Your task to perform on an android device: What's the weather today? Image 0: 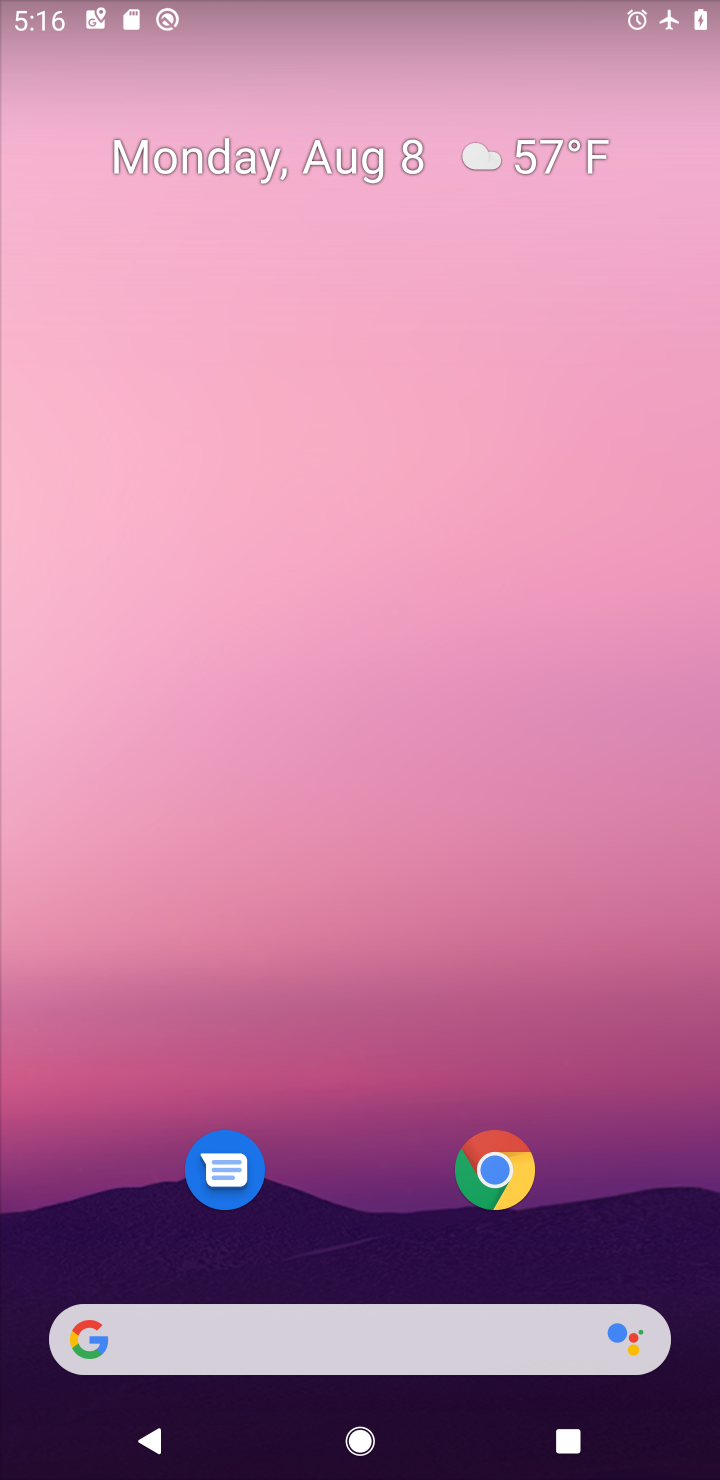
Step 0: drag from (361, 1193) to (324, 381)
Your task to perform on an android device: What's the weather today? Image 1: 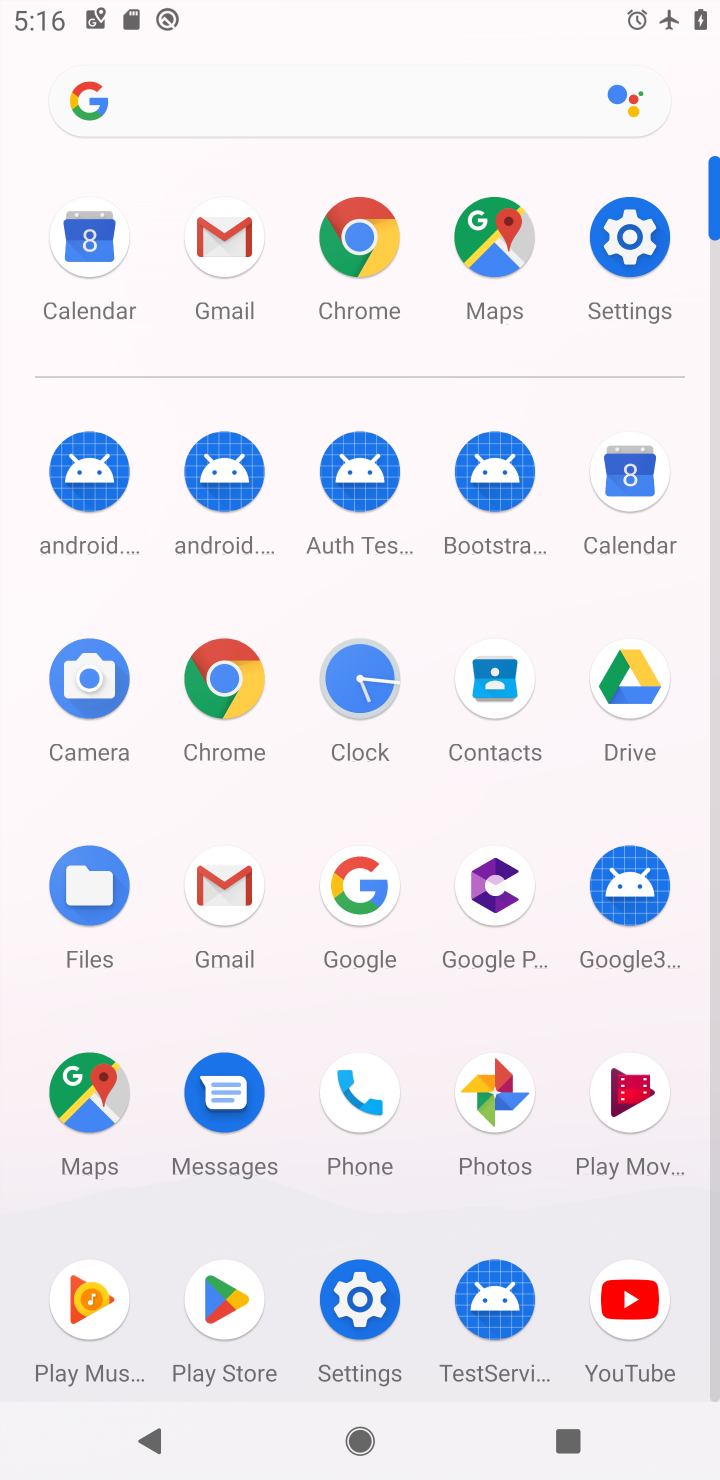
Step 1: click (408, 891)
Your task to perform on an android device: What's the weather today? Image 2: 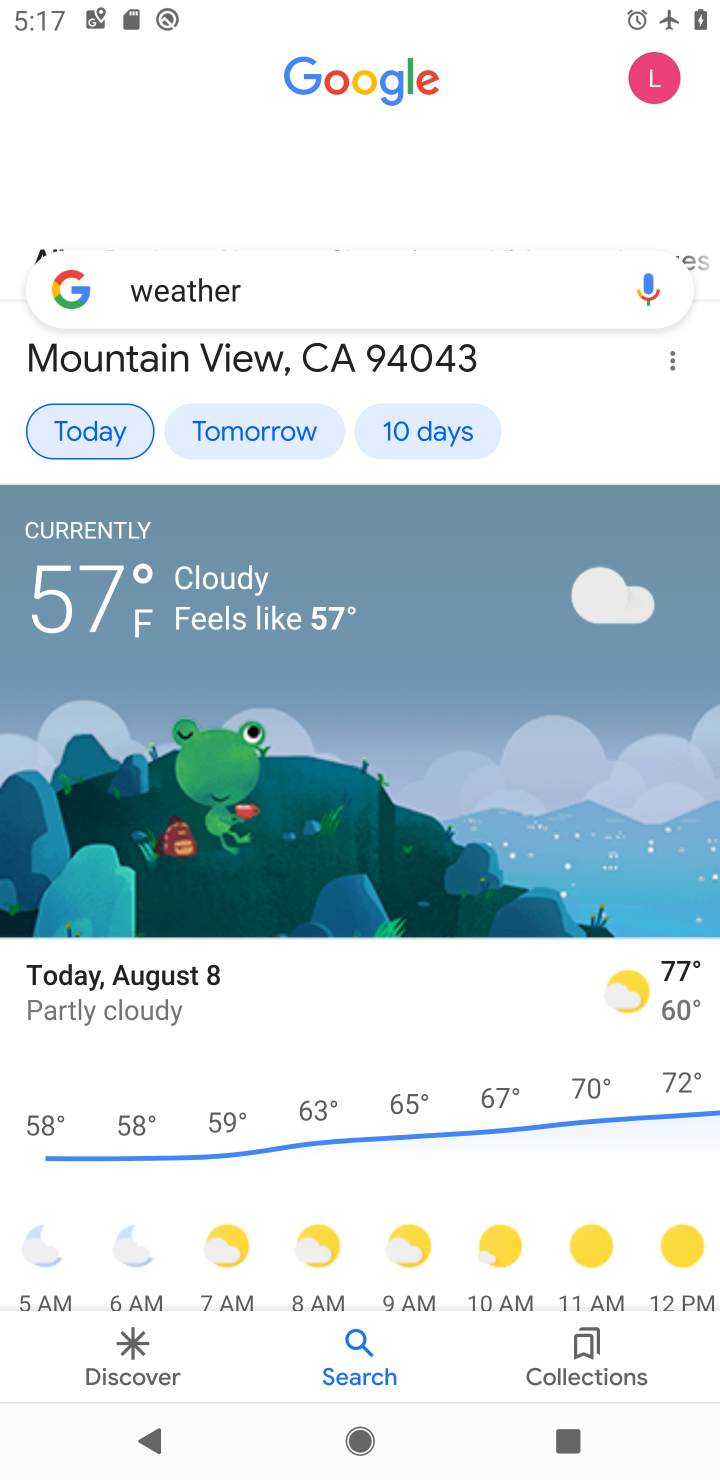
Step 2: task complete